Your task to perform on an android device: move an email to a new category in the gmail app Image 0: 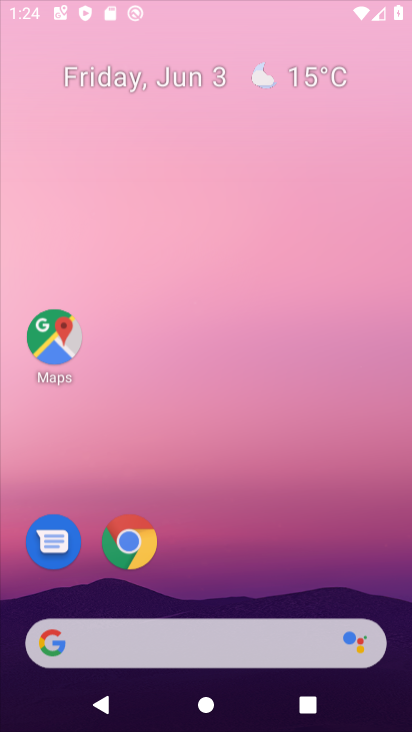
Step 0: click (409, 5)
Your task to perform on an android device: move an email to a new category in the gmail app Image 1: 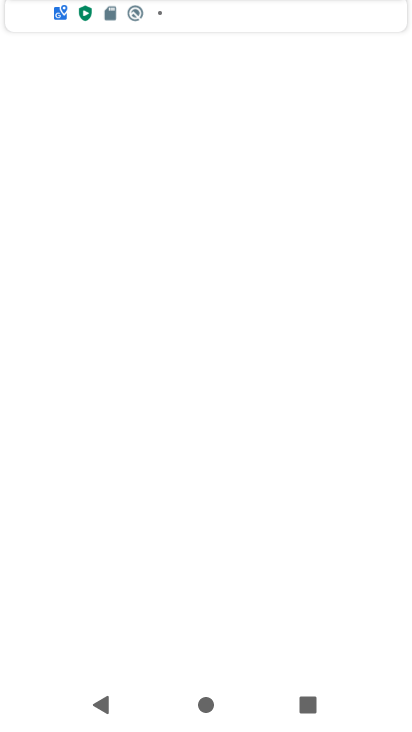
Step 1: press home button
Your task to perform on an android device: move an email to a new category in the gmail app Image 2: 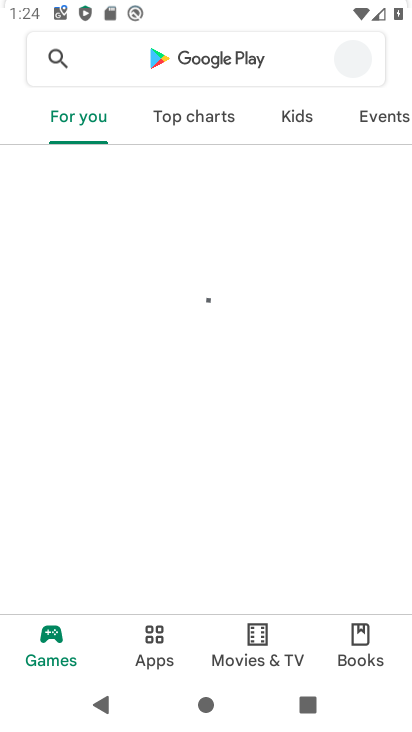
Step 2: drag from (409, 5) to (402, 58)
Your task to perform on an android device: move an email to a new category in the gmail app Image 3: 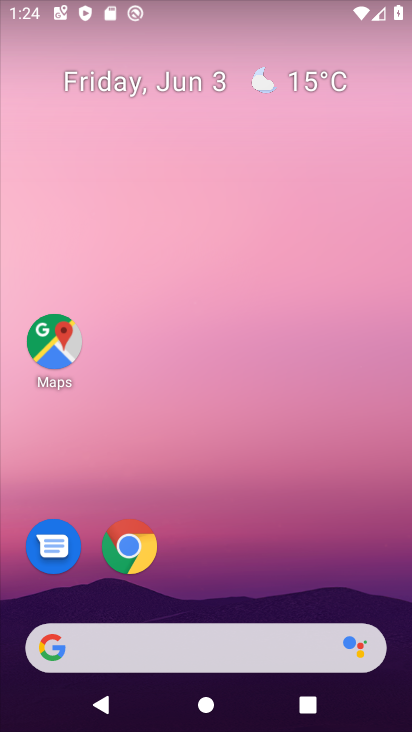
Step 3: click (284, 93)
Your task to perform on an android device: move an email to a new category in the gmail app Image 4: 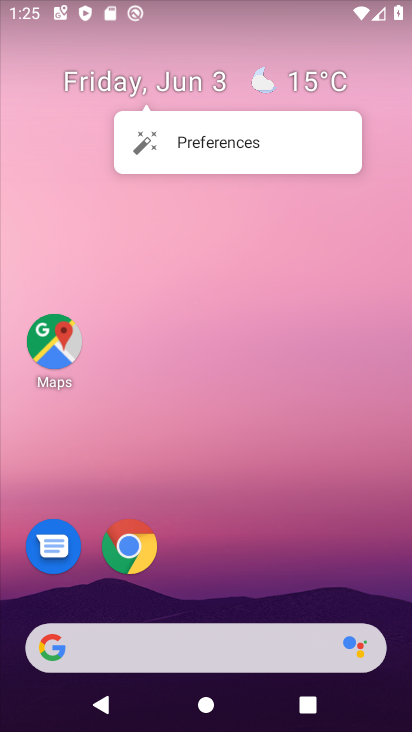
Step 4: drag from (278, 546) to (252, 36)
Your task to perform on an android device: move an email to a new category in the gmail app Image 5: 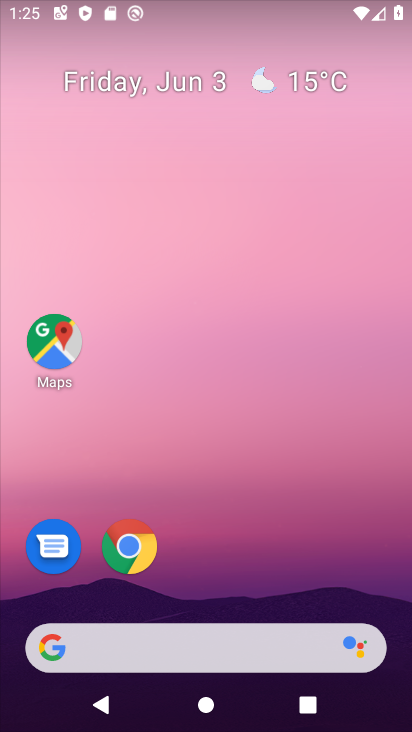
Step 5: drag from (301, 452) to (311, 139)
Your task to perform on an android device: move an email to a new category in the gmail app Image 6: 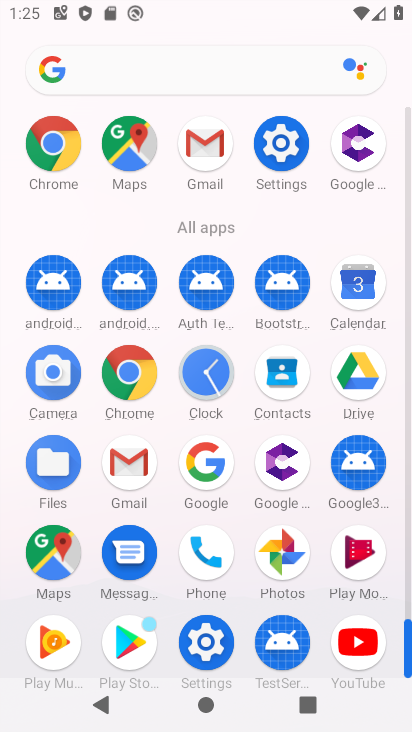
Step 6: click (198, 134)
Your task to perform on an android device: move an email to a new category in the gmail app Image 7: 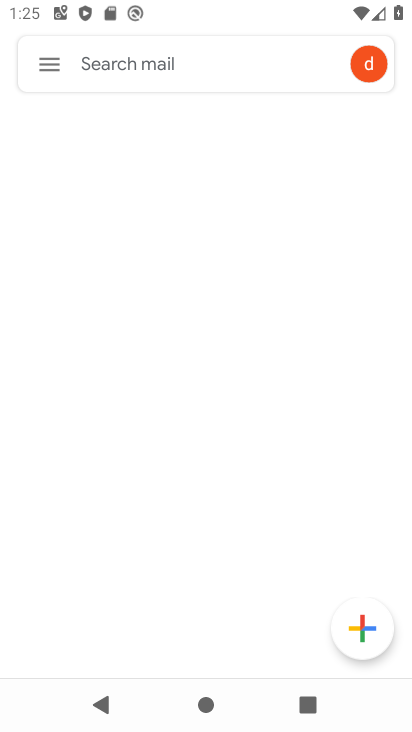
Step 7: click (55, 65)
Your task to perform on an android device: move an email to a new category in the gmail app Image 8: 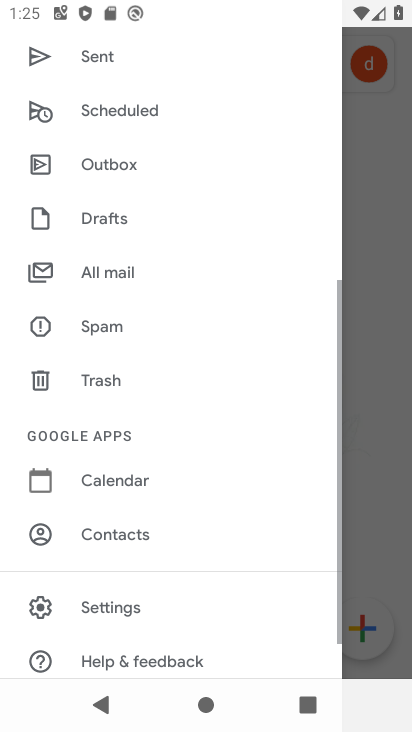
Step 8: drag from (69, 109) to (127, 661)
Your task to perform on an android device: move an email to a new category in the gmail app Image 9: 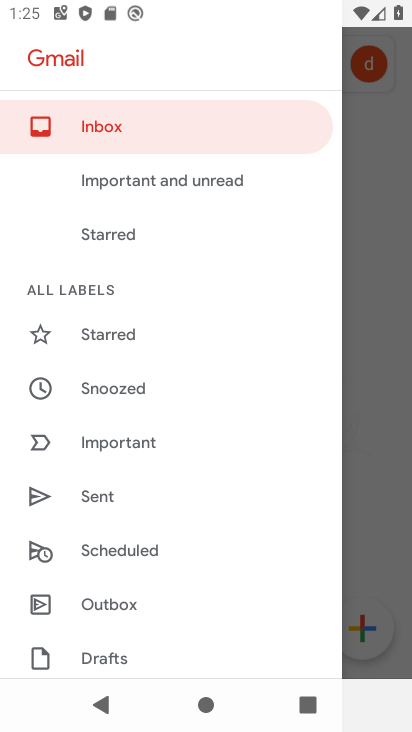
Step 9: click (82, 108)
Your task to perform on an android device: move an email to a new category in the gmail app Image 10: 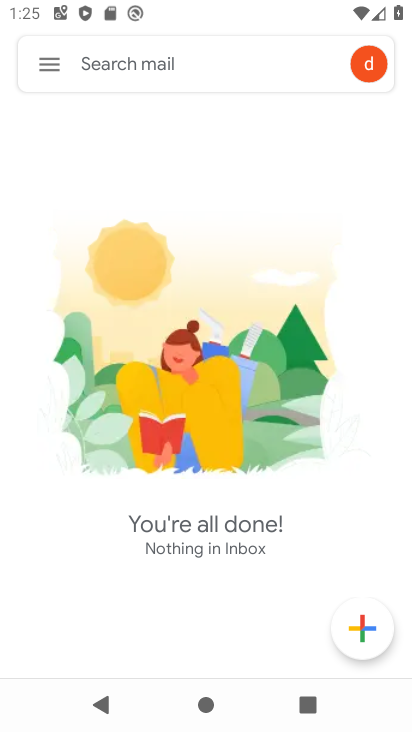
Step 10: task complete